Your task to perform on an android device: Go to internet settings Image 0: 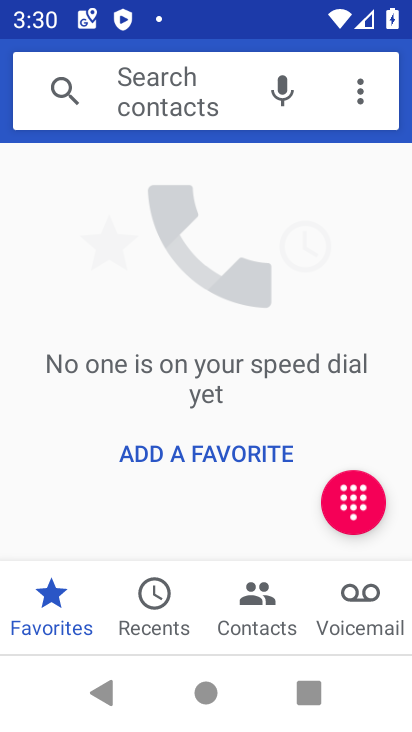
Step 0: press home button
Your task to perform on an android device: Go to internet settings Image 1: 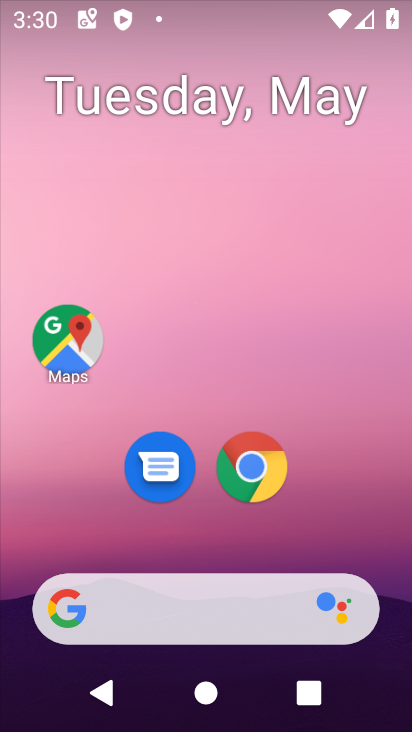
Step 1: drag from (330, 497) to (347, 77)
Your task to perform on an android device: Go to internet settings Image 2: 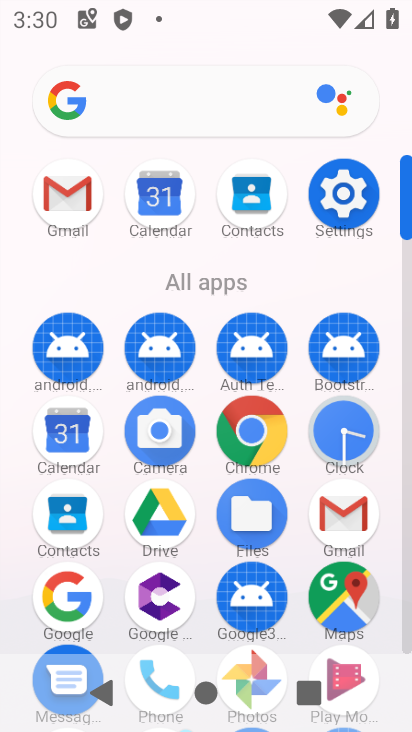
Step 2: click (355, 167)
Your task to perform on an android device: Go to internet settings Image 3: 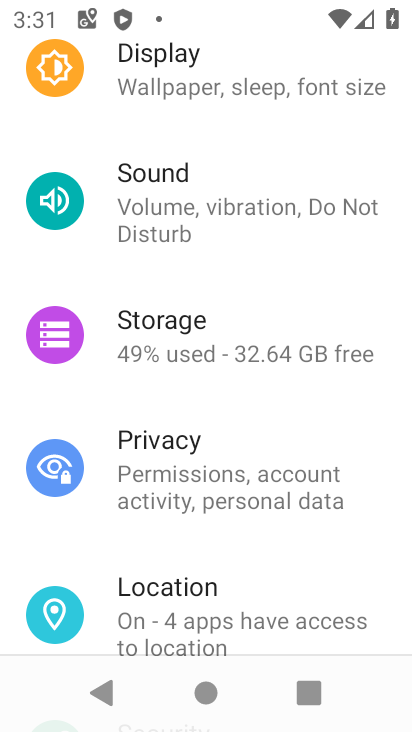
Step 3: drag from (302, 128) to (224, 721)
Your task to perform on an android device: Go to internet settings Image 4: 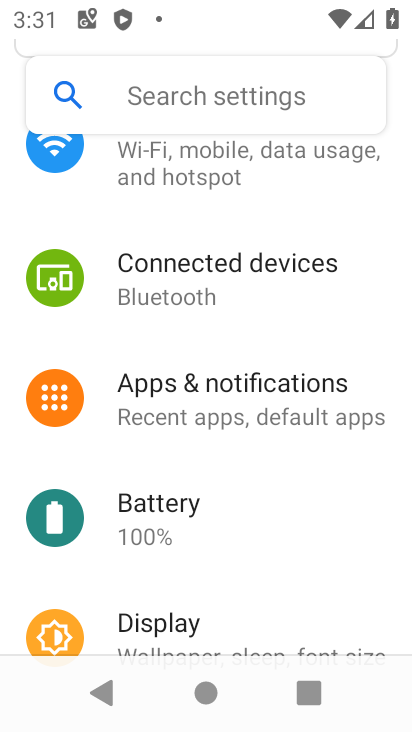
Step 4: click (260, 153)
Your task to perform on an android device: Go to internet settings Image 5: 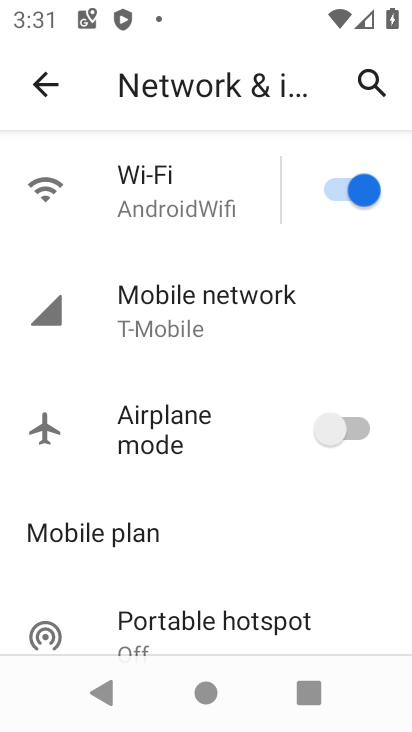
Step 5: task complete